Your task to perform on an android device: Add "usb-c" to the cart on newegg.com Image 0: 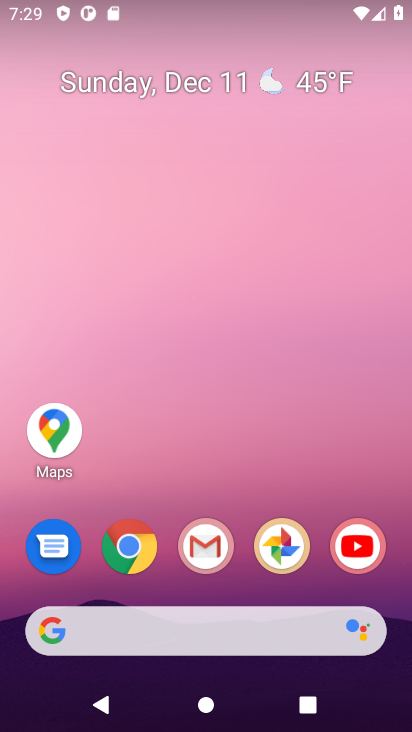
Step 0: click (138, 552)
Your task to perform on an android device: Add "usb-c" to the cart on newegg.com Image 1: 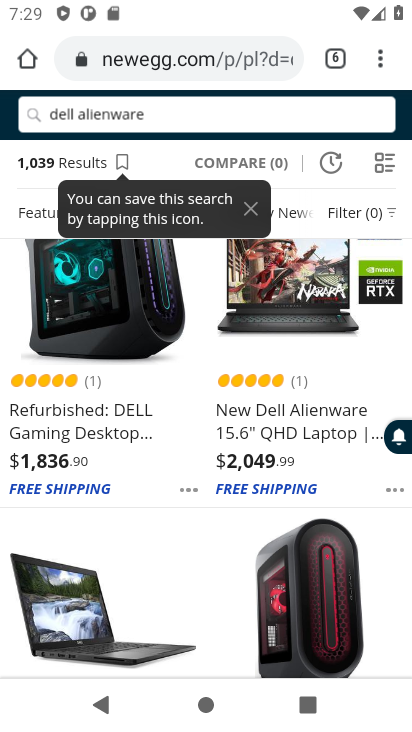
Step 1: click (169, 122)
Your task to perform on an android device: Add "usb-c" to the cart on newegg.com Image 2: 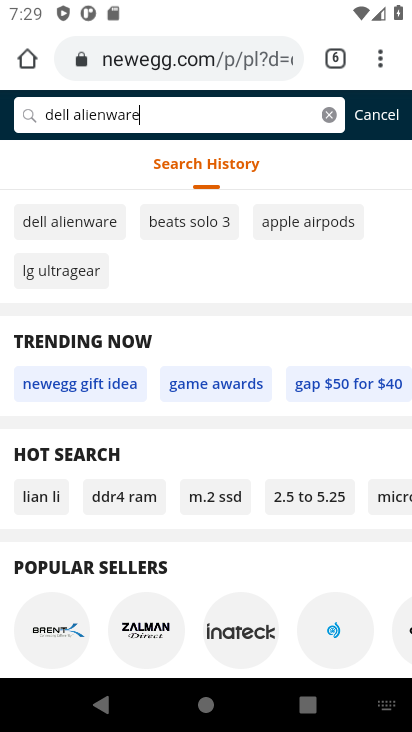
Step 2: click (331, 114)
Your task to perform on an android device: Add "usb-c" to the cart on newegg.com Image 3: 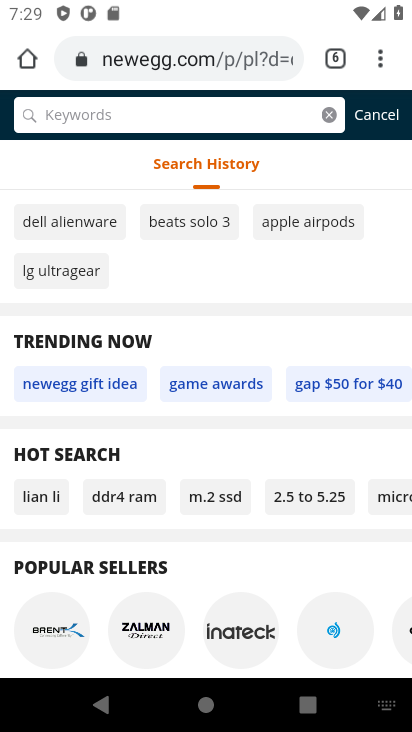
Step 3: type "usb-c"
Your task to perform on an android device: Add "usb-c" to the cart on newegg.com Image 4: 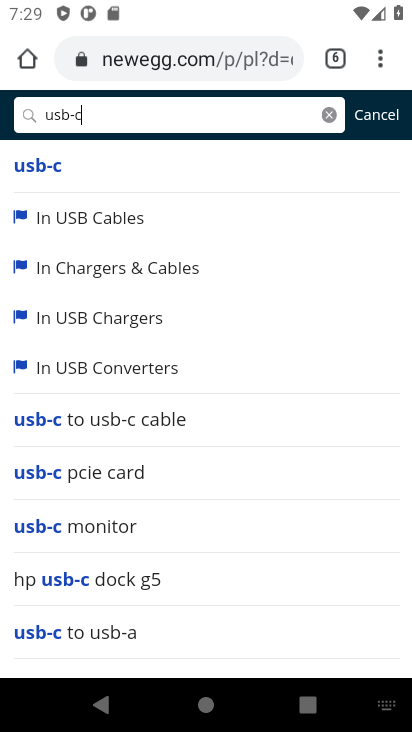
Step 4: click (53, 173)
Your task to perform on an android device: Add "usb-c" to the cart on newegg.com Image 5: 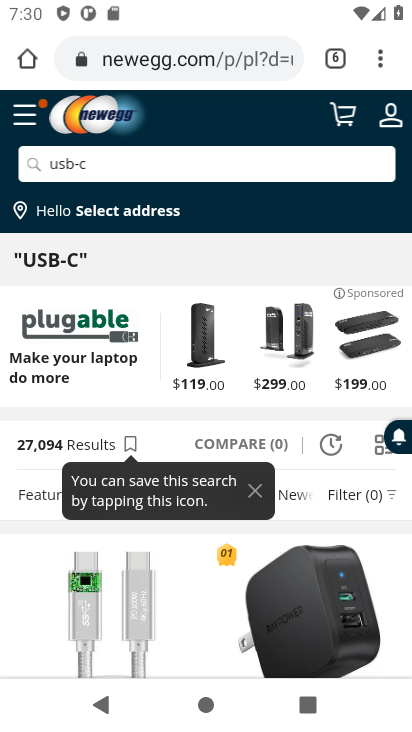
Step 5: drag from (177, 435) to (172, 155)
Your task to perform on an android device: Add "usb-c" to the cart on newegg.com Image 6: 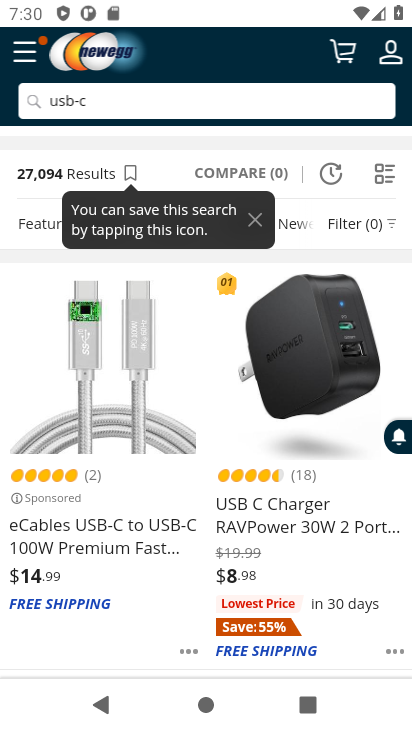
Step 6: click (106, 421)
Your task to perform on an android device: Add "usb-c" to the cart on newegg.com Image 7: 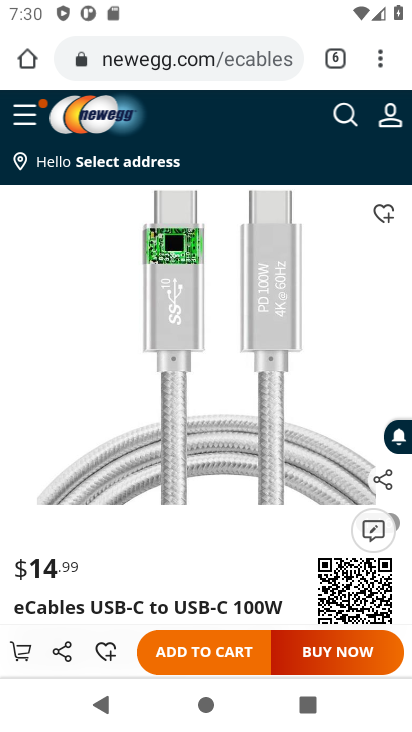
Step 7: click (198, 648)
Your task to perform on an android device: Add "usb-c" to the cart on newegg.com Image 8: 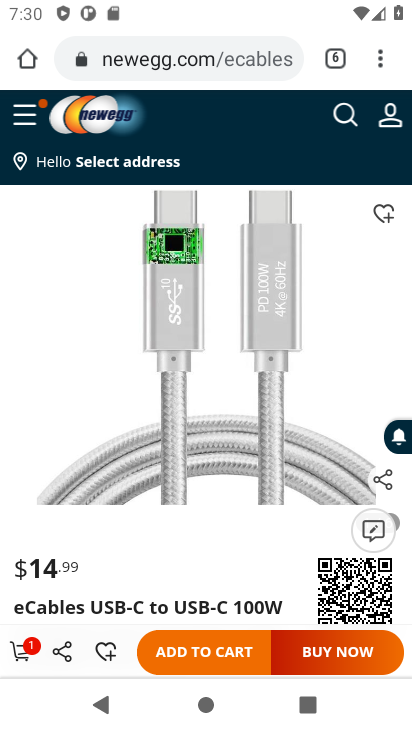
Step 8: task complete